Your task to perform on an android device: Go to accessibility settings Image 0: 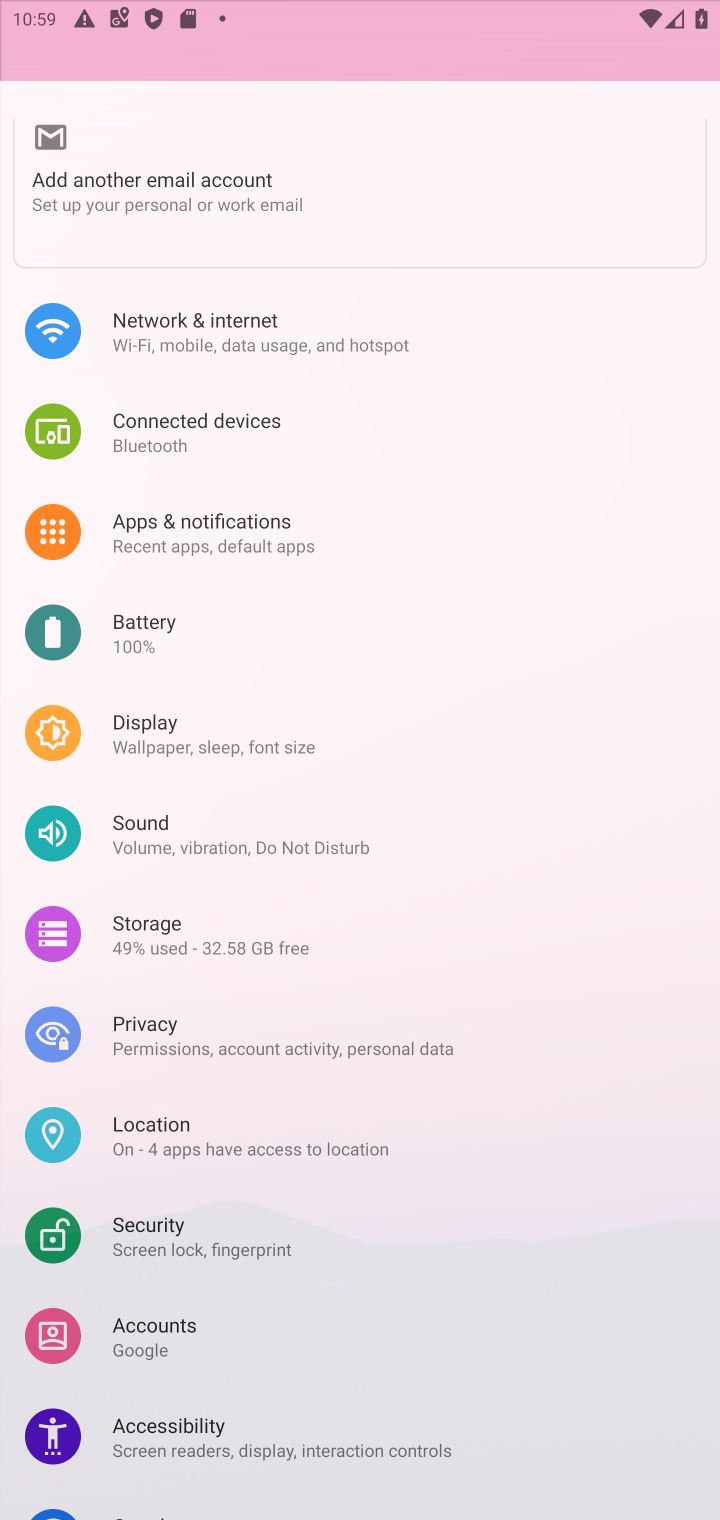
Step 0: click (338, 803)
Your task to perform on an android device: Go to accessibility settings Image 1: 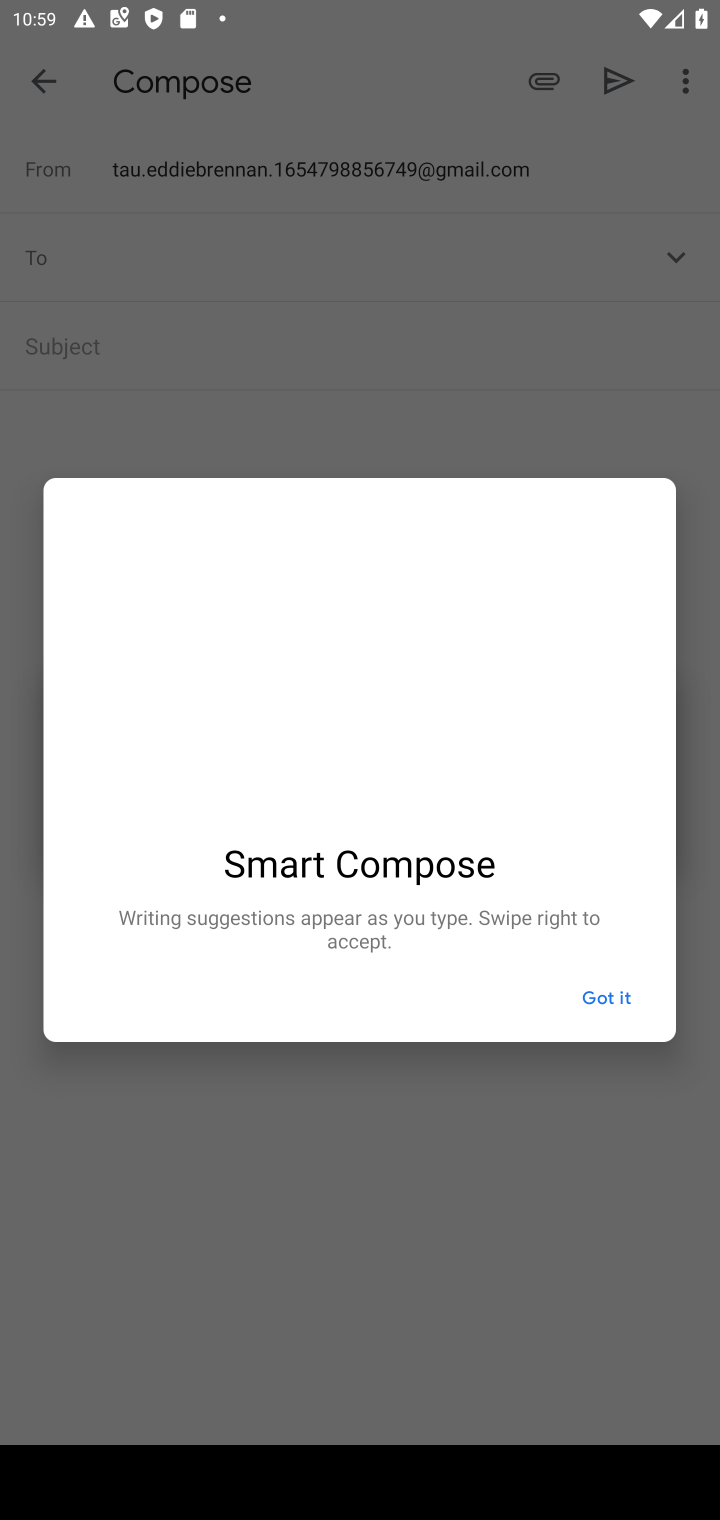
Step 1: press home button
Your task to perform on an android device: Go to accessibility settings Image 2: 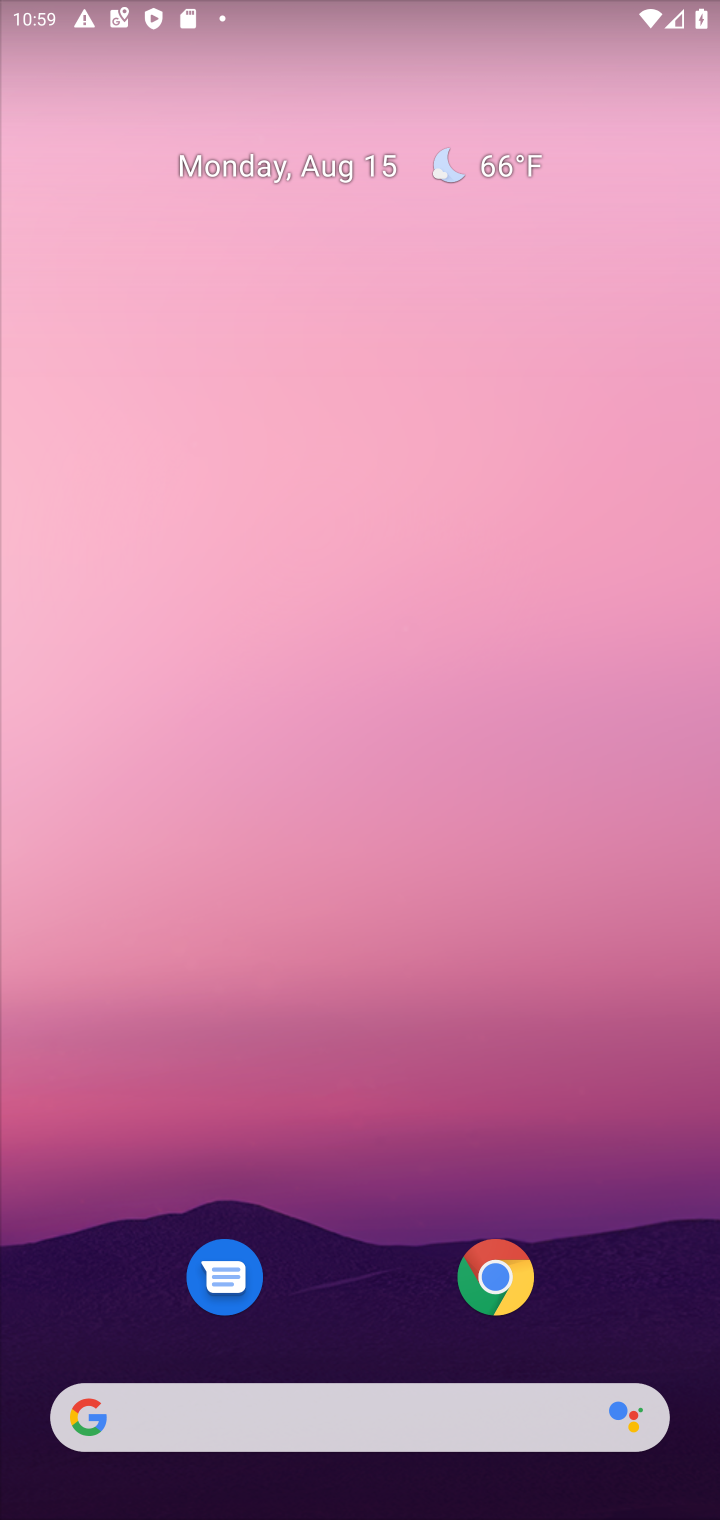
Step 2: press back button
Your task to perform on an android device: Go to accessibility settings Image 3: 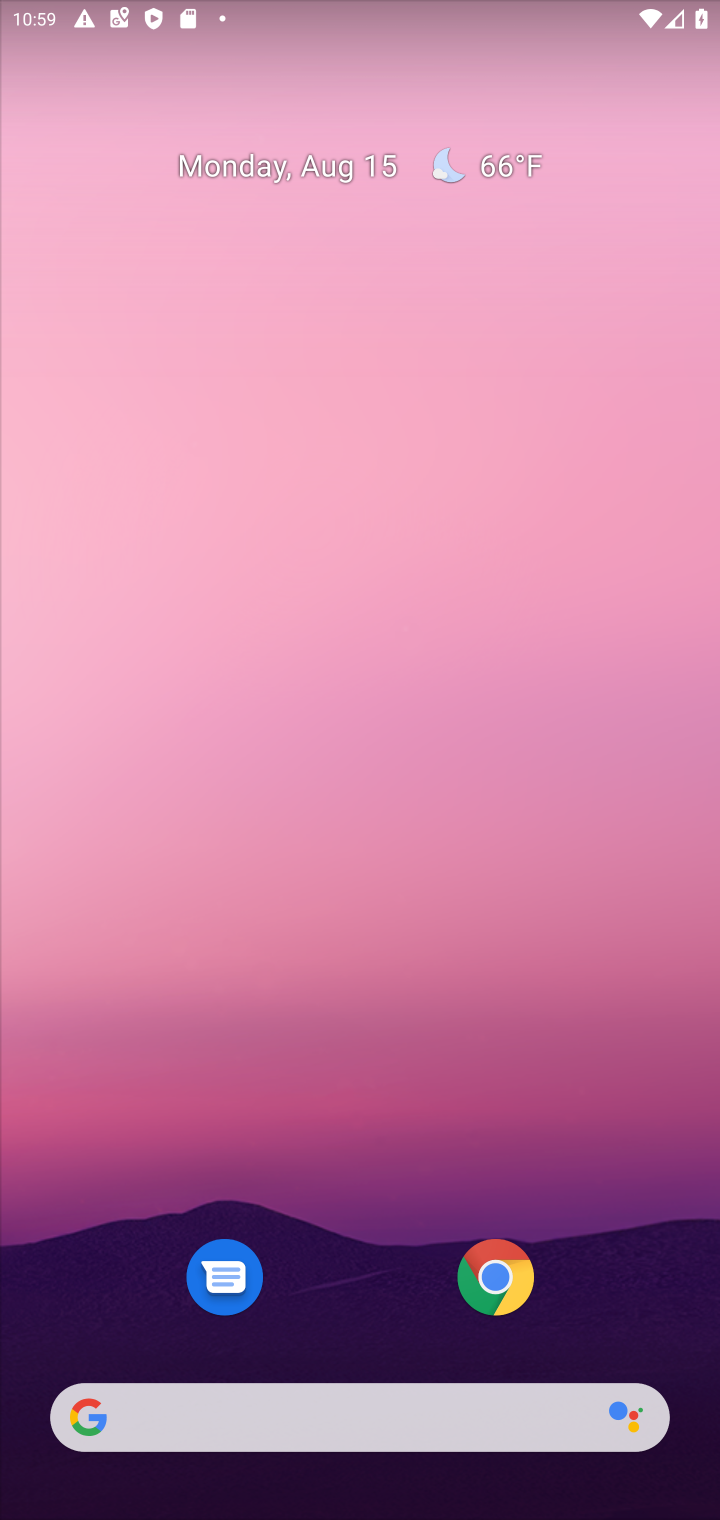
Step 3: drag from (358, 1408) to (432, 264)
Your task to perform on an android device: Go to accessibility settings Image 4: 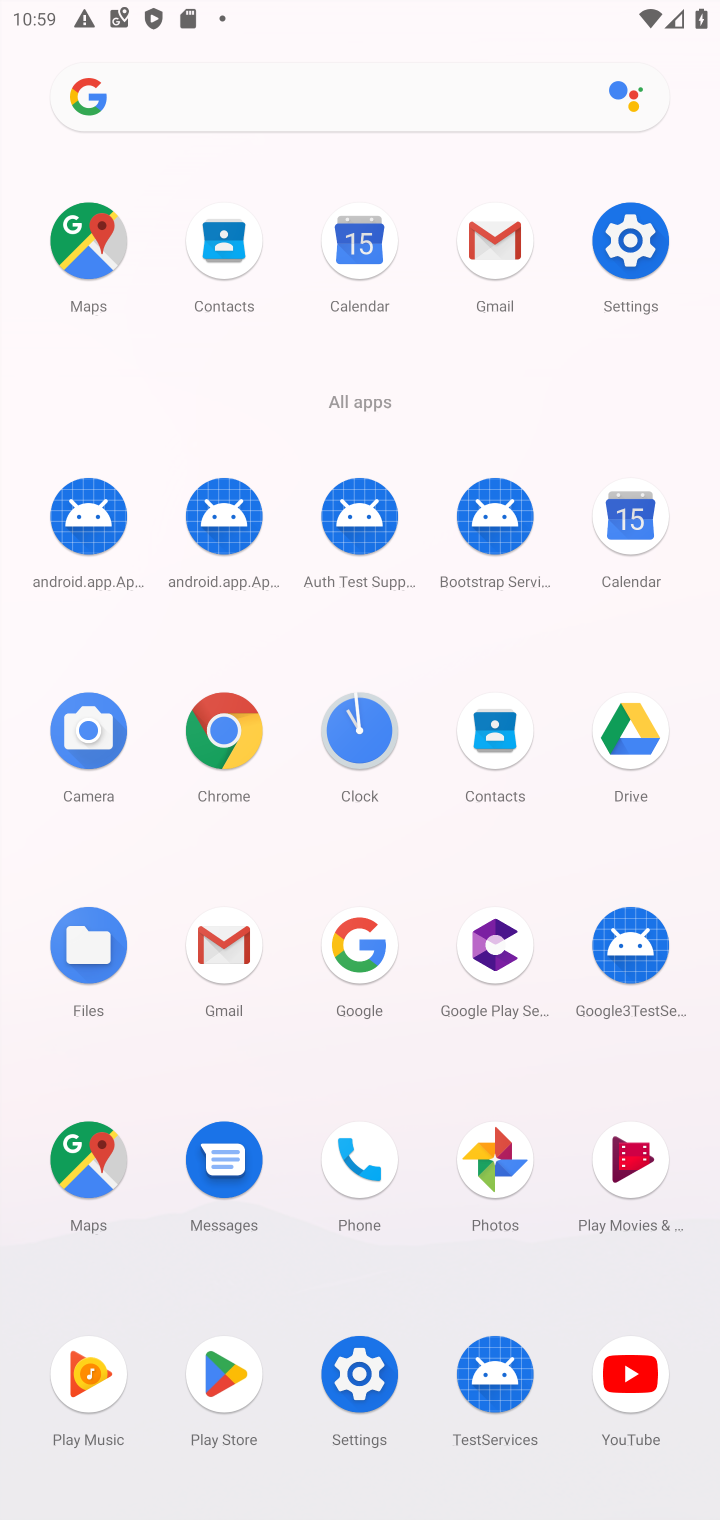
Step 4: click (623, 266)
Your task to perform on an android device: Go to accessibility settings Image 5: 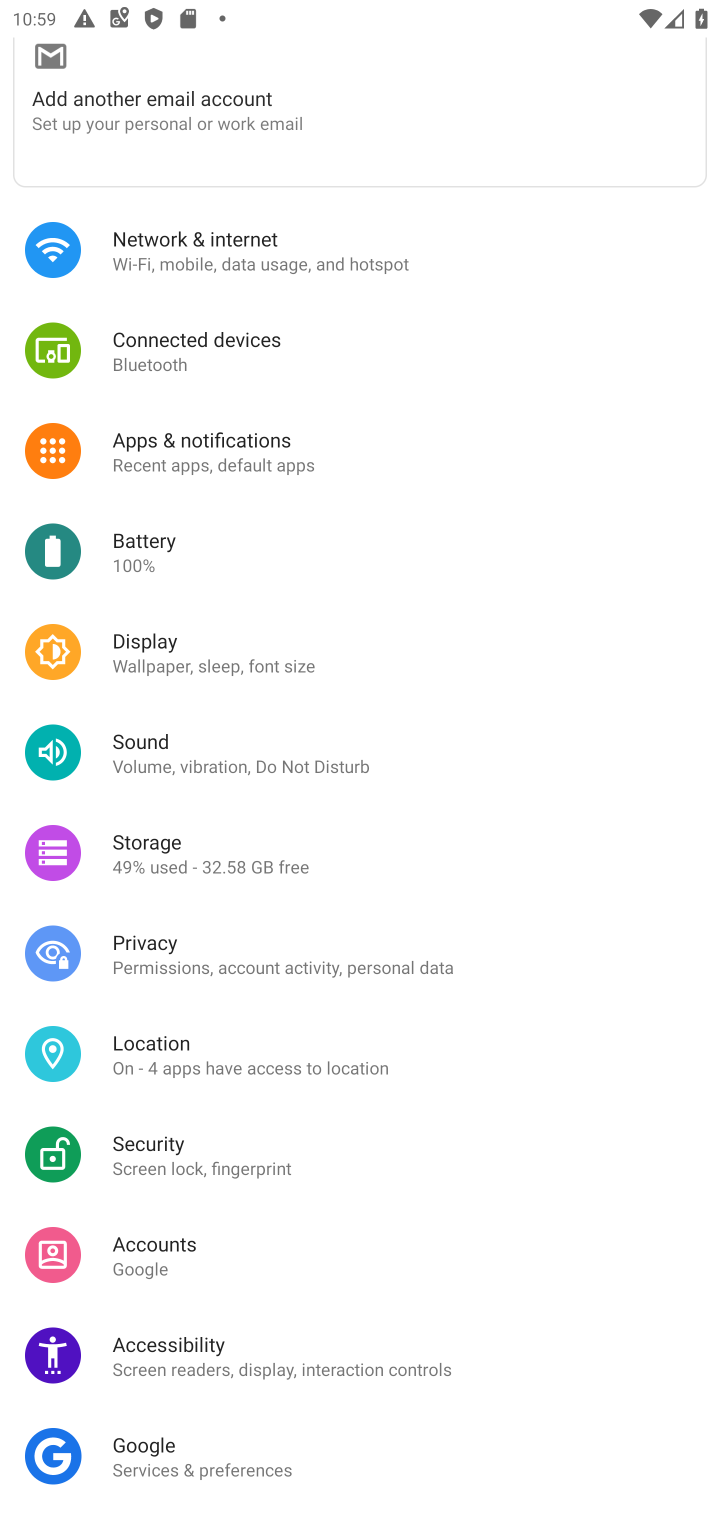
Step 5: click (232, 1178)
Your task to perform on an android device: Go to accessibility settings Image 6: 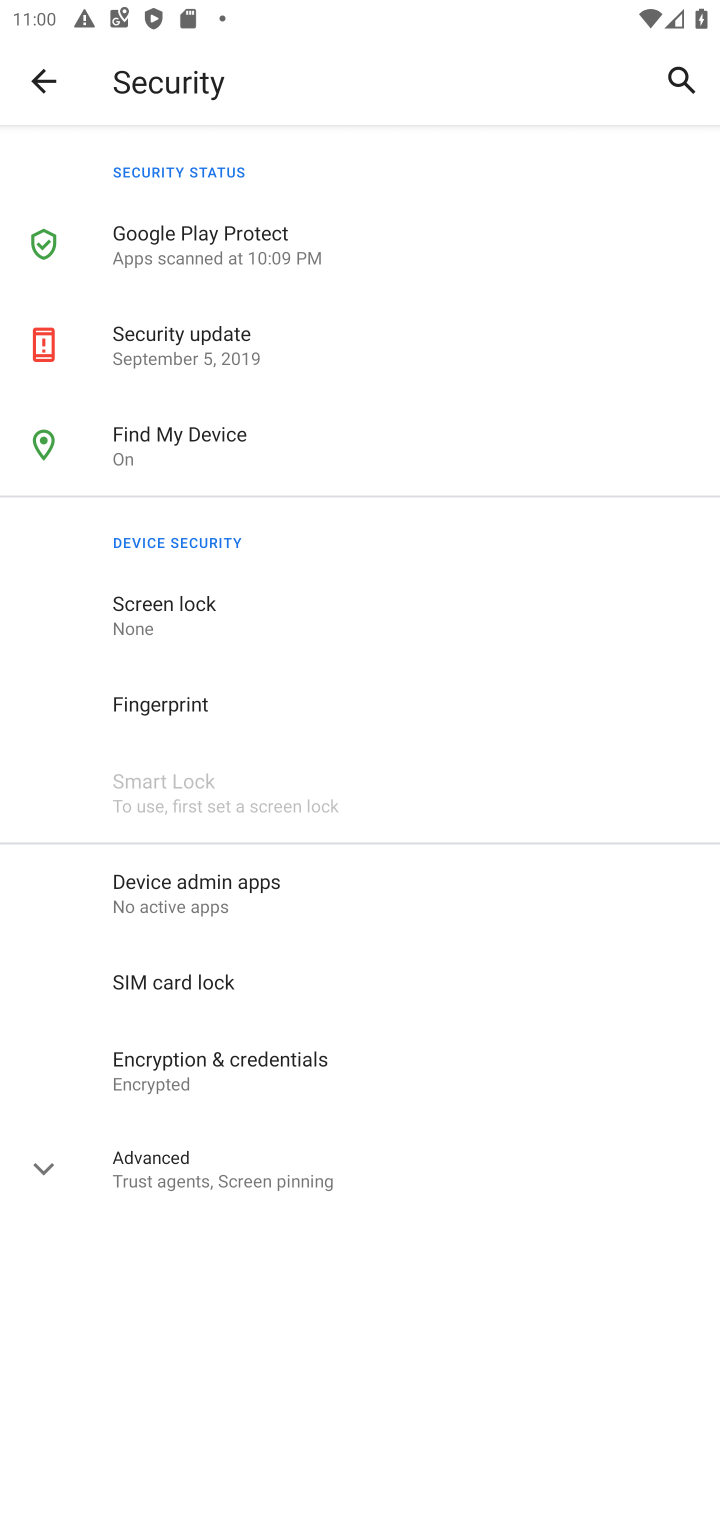
Step 6: task complete